Your task to perform on an android device: Open Chrome and go to settings Image 0: 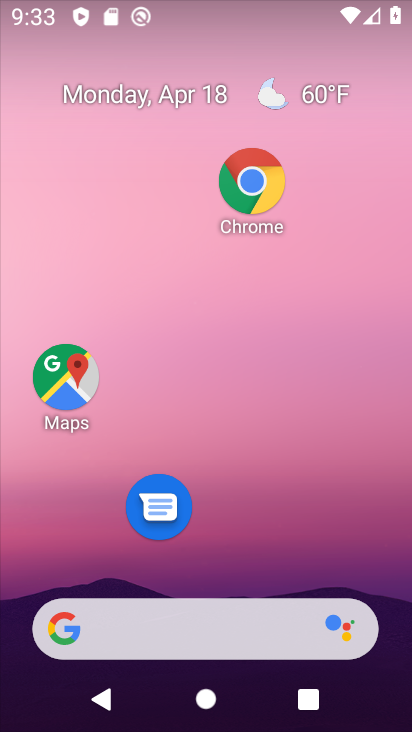
Step 0: click (248, 206)
Your task to perform on an android device: Open Chrome and go to settings Image 1: 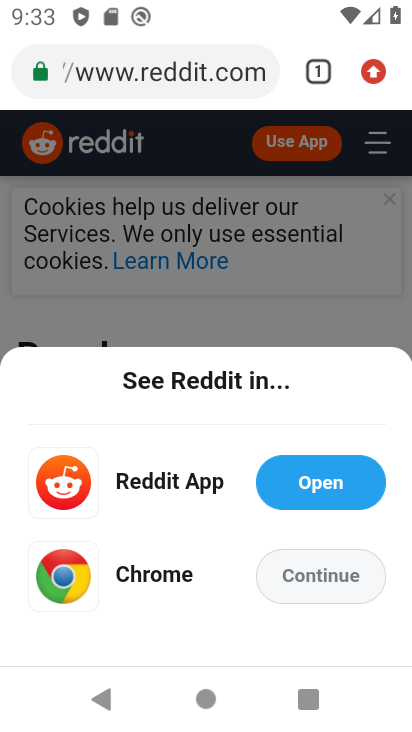
Step 1: task complete